Your task to perform on an android device: turn on improve location accuracy Image 0: 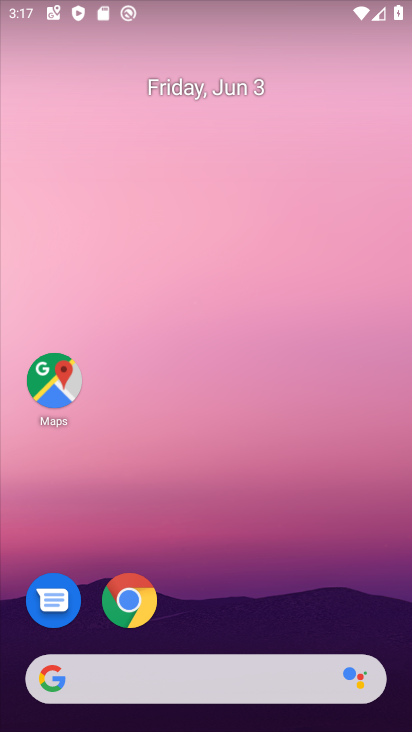
Step 0: drag from (230, 622) to (340, 31)
Your task to perform on an android device: turn on improve location accuracy Image 1: 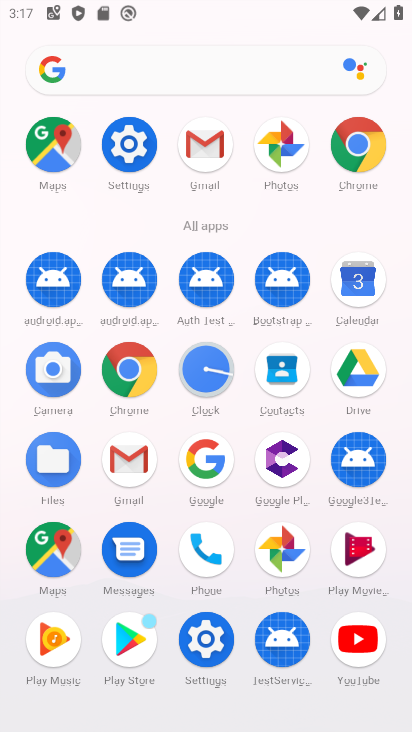
Step 1: click (134, 155)
Your task to perform on an android device: turn on improve location accuracy Image 2: 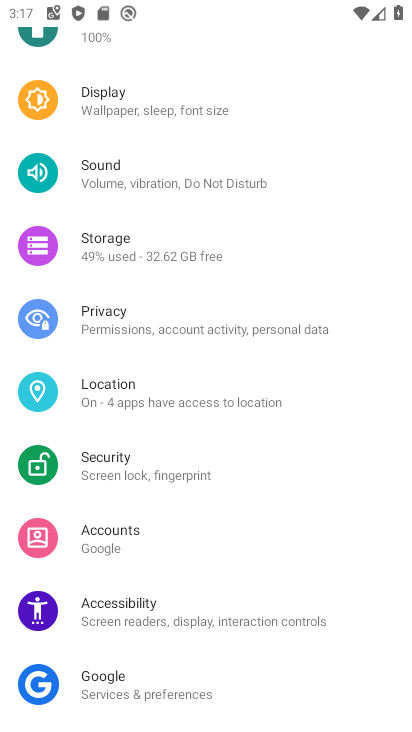
Step 2: click (139, 391)
Your task to perform on an android device: turn on improve location accuracy Image 3: 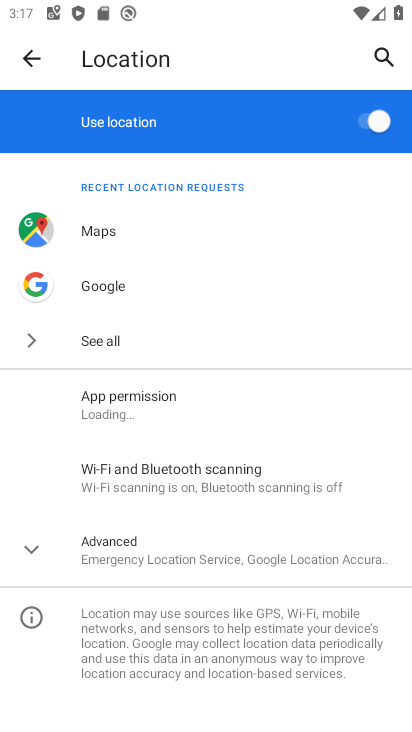
Step 3: click (170, 559)
Your task to perform on an android device: turn on improve location accuracy Image 4: 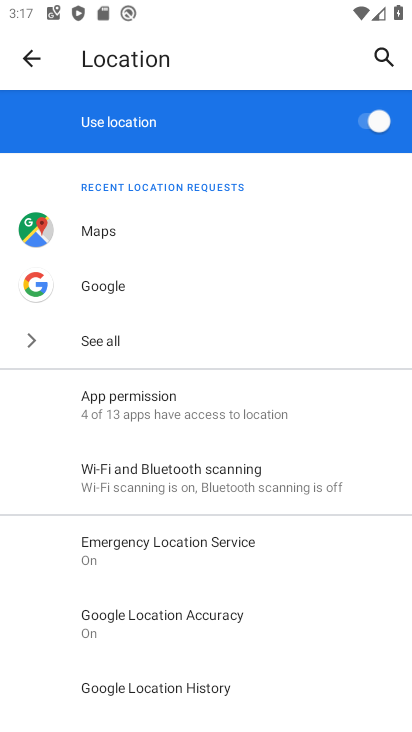
Step 4: click (165, 622)
Your task to perform on an android device: turn on improve location accuracy Image 5: 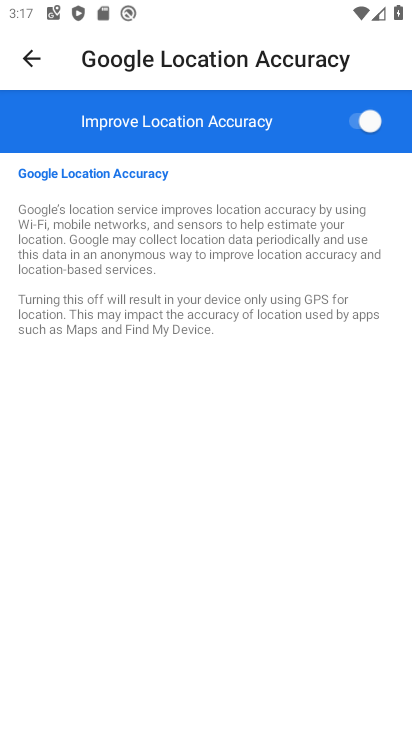
Step 5: task complete